Your task to perform on an android device: toggle wifi Image 0: 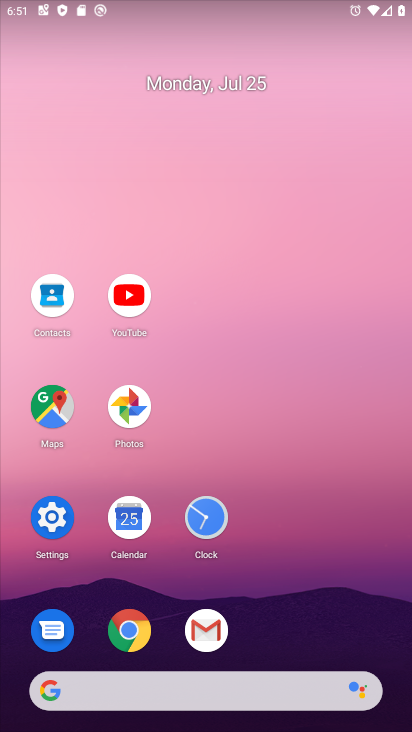
Step 0: click (53, 518)
Your task to perform on an android device: toggle wifi Image 1: 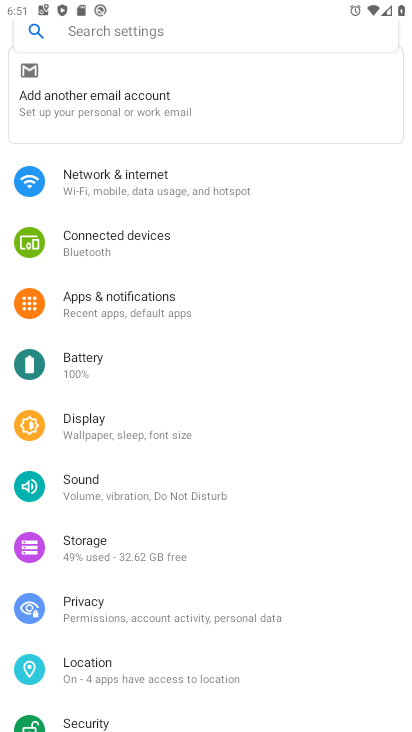
Step 1: click (137, 174)
Your task to perform on an android device: toggle wifi Image 2: 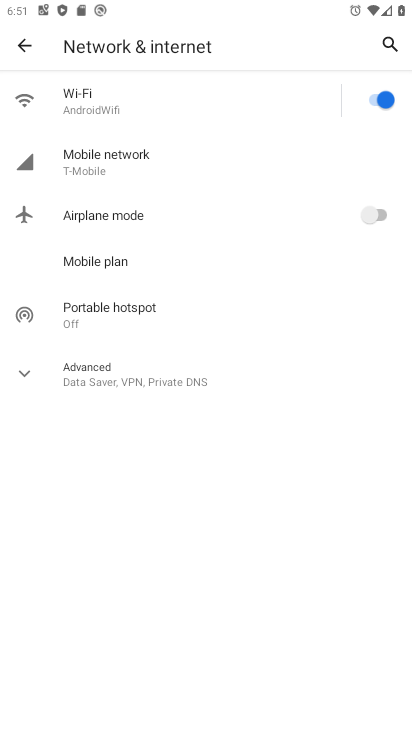
Step 2: click (391, 89)
Your task to perform on an android device: toggle wifi Image 3: 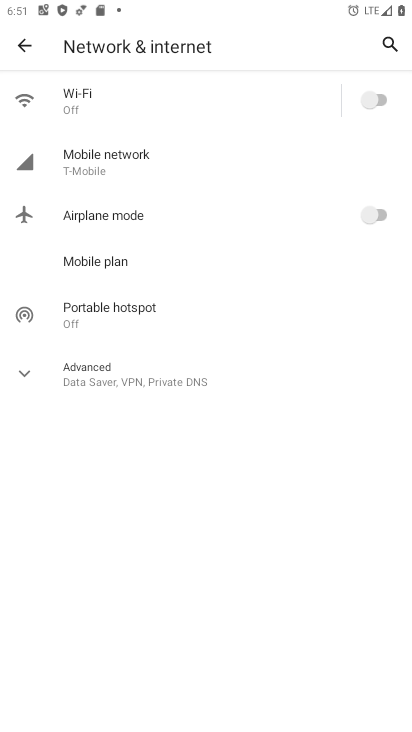
Step 3: task complete